Your task to perform on an android device: open wifi settings Image 0: 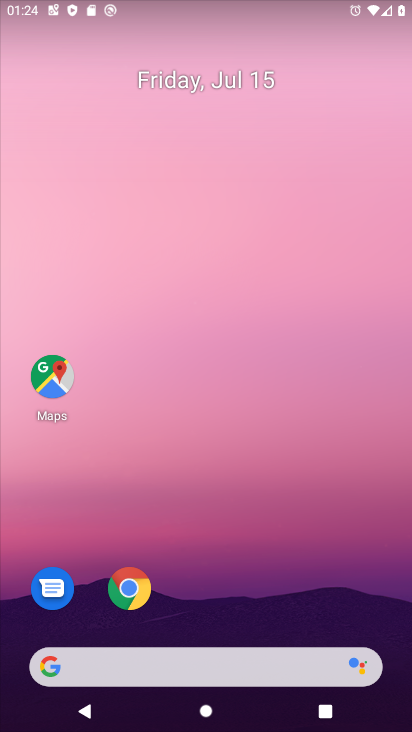
Step 0: drag from (374, 606) to (333, 58)
Your task to perform on an android device: open wifi settings Image 1: 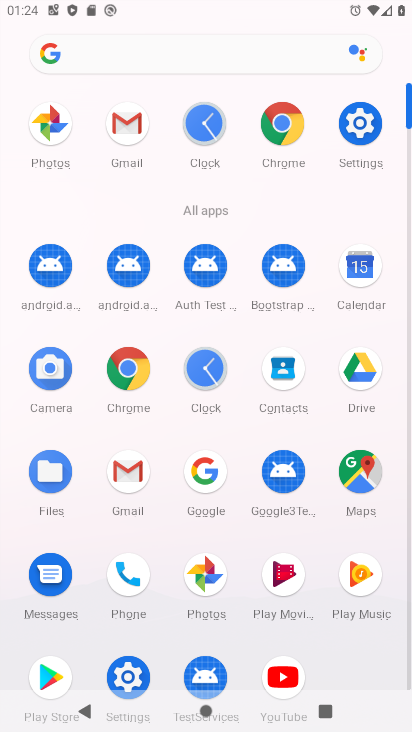
Step 1: click (127, 672)
Your task to perform on an android device: open wifi settings Image 2: 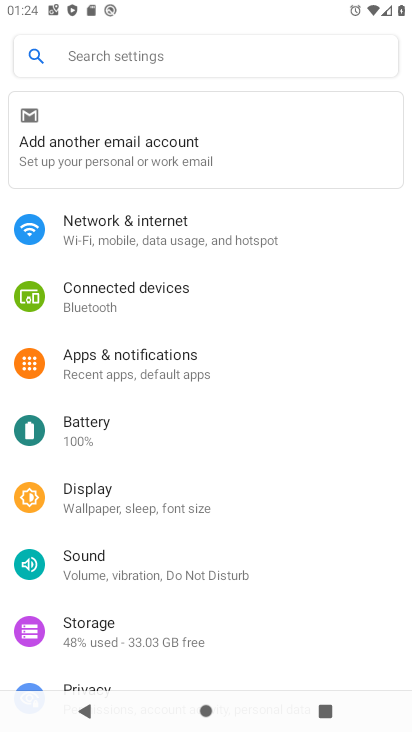
Step 2: click (95, 232)
Your task to perform on an android device: open wifi settings Image 3: 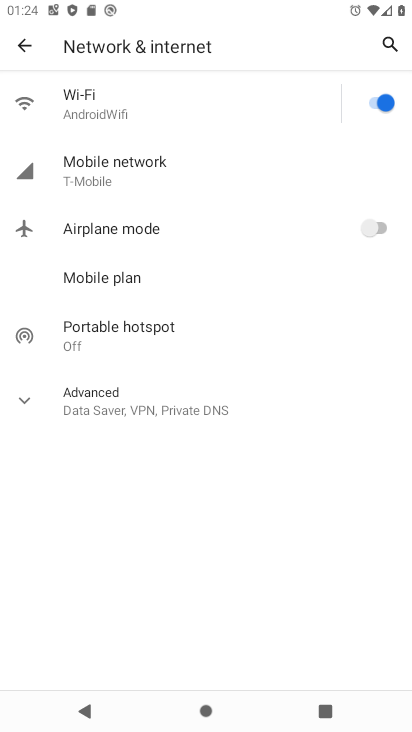
Step 3: click (67, 84)
Your task to perform on an android device: open wifi settings Image 4: 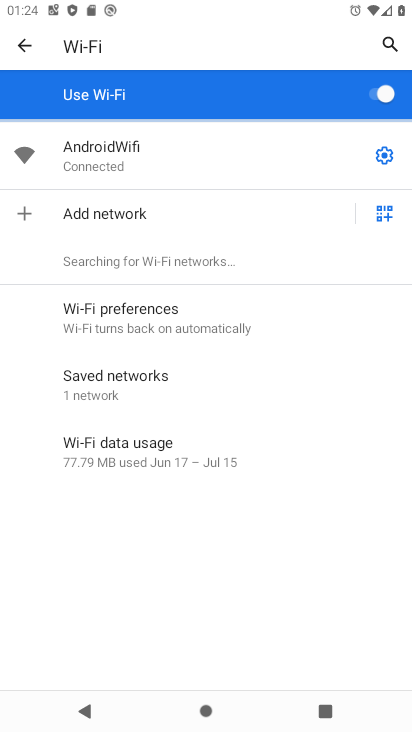
Step 4: click (384, 156)
Your task to perform on an android device: open wifi settings Image 5: 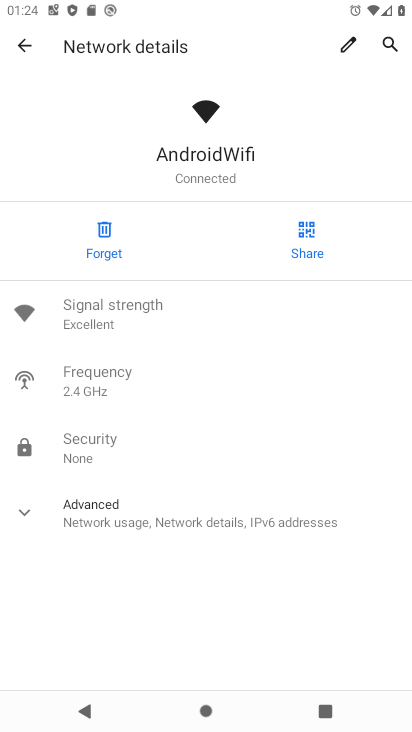
Step 5: task complete